Your task to perform on an android device: Go to ESPN.com Image 0: 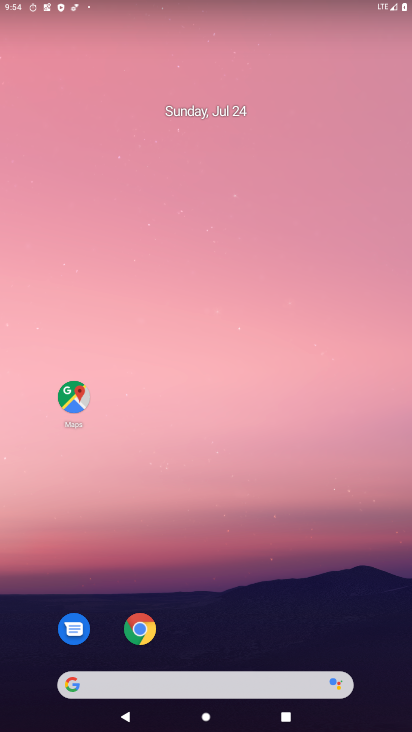
Step 0: press home button
Your task to perform on an android device: Go to ESPN.com Image 1: 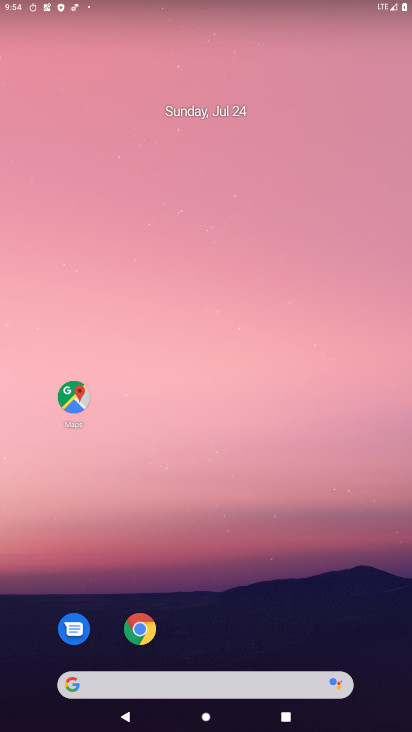
Step 1: click (70, 679)
Your task to perform on an android device: Go to ESPN.com Image 2: 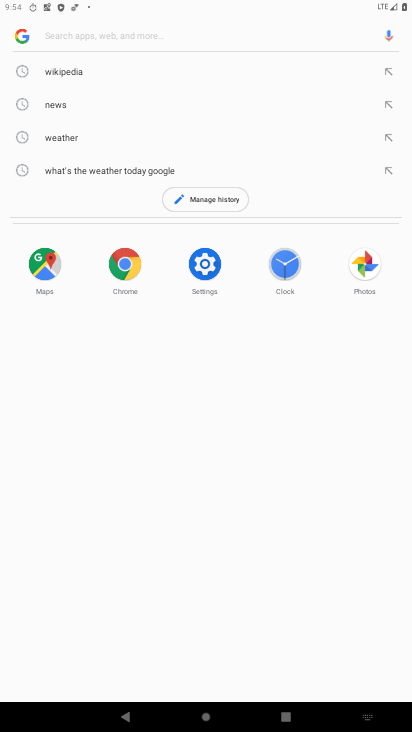
Step 2: click (82, 36)
Your task to perform on an android device: Go to ESPN.com Image 3: 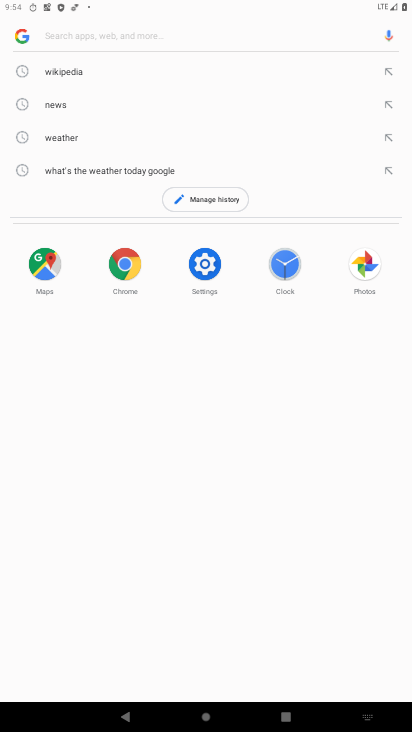
Step 3: click (51, 38)
Your task to perform on an android device: Go to ESPN.com Image 4: 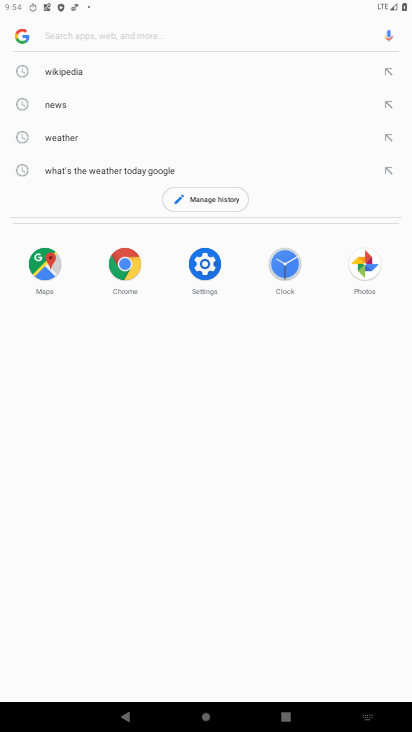
Step 4: type "ESPN.com"
Your task to perform on an android device: Go to ESPN.com Image 5: 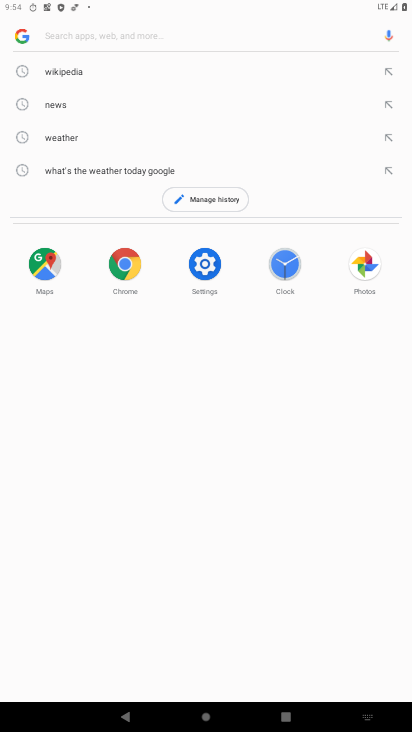
Step 5: click (83, 32)
Your task to perform on an android device: Go to ESPN.com Image 6: 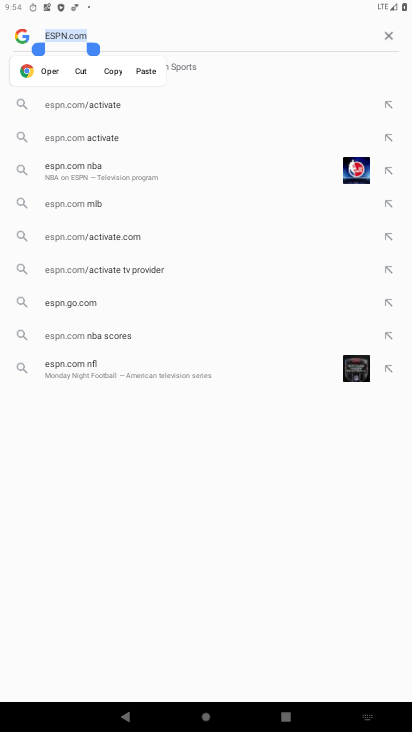
Step 6: press enter
Your task to perform on an android device: Go to ESPN.com Image 7: 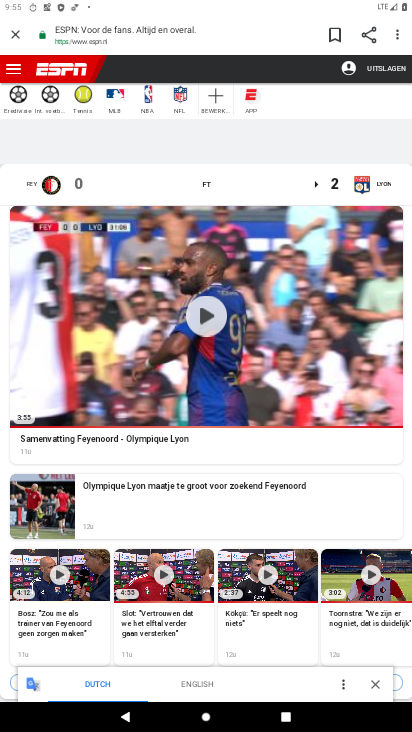
Step 7: task complete